Your task to perform on an android device: Go to accessibility settings Image 0: 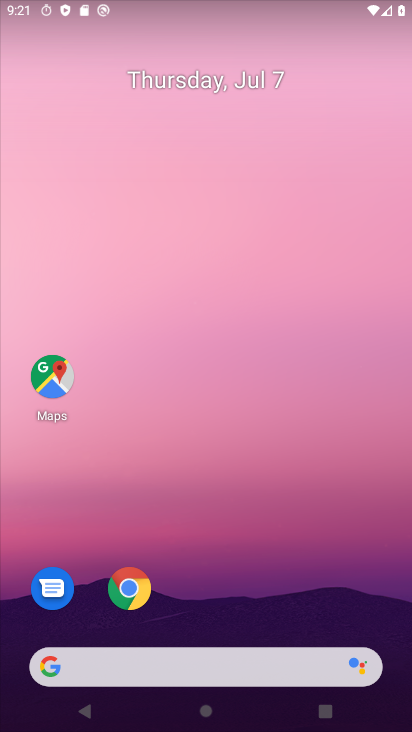
Step 0: drag from (244, 533) to (194, 187)
Your task to perform on an android device: Go to accessibility settings Image 1: 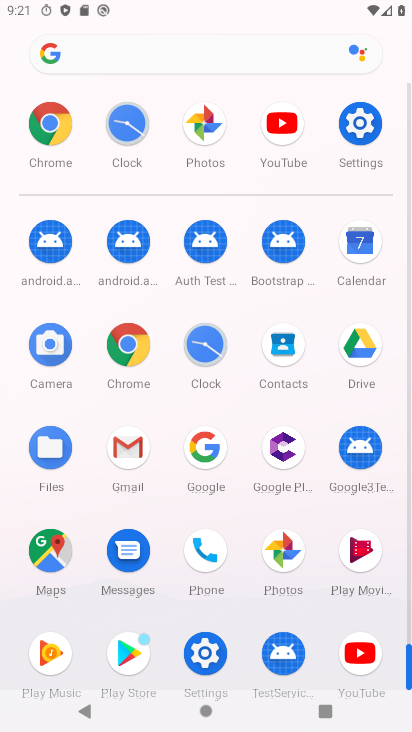
Step 1: click (360, 128)
Your task to perform on an android device: Go to accessibility settings Image 2: 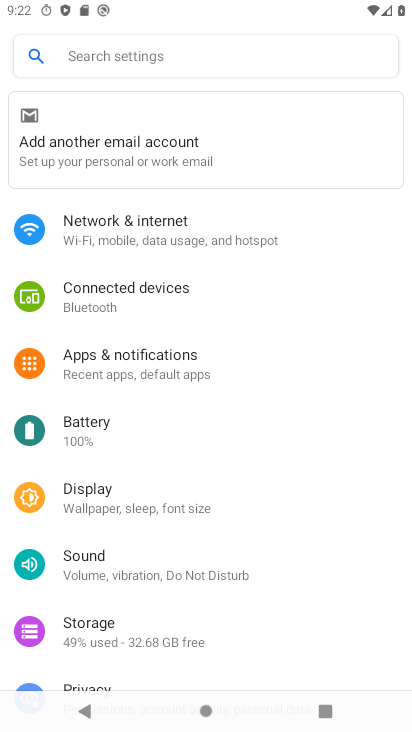
Step 2: drag from (158, 556) to (98, 304)
Your task to perform on an android device: Go to accessibility settings Image 3: 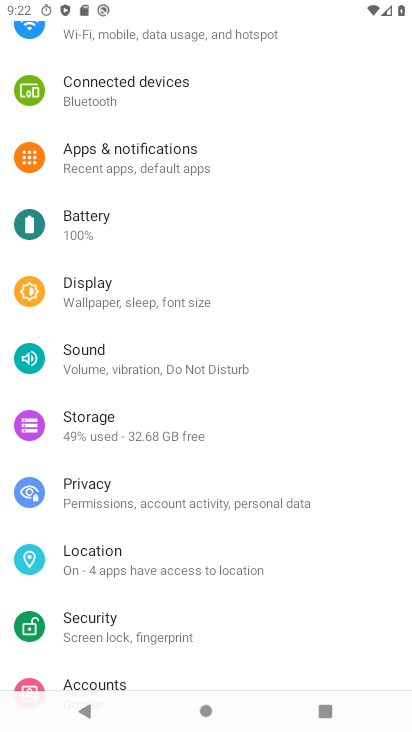
Step 3: drag from (139, 627) to (126, 477)
Your task to perform on an android device: Go to accessibility settings Image 4: 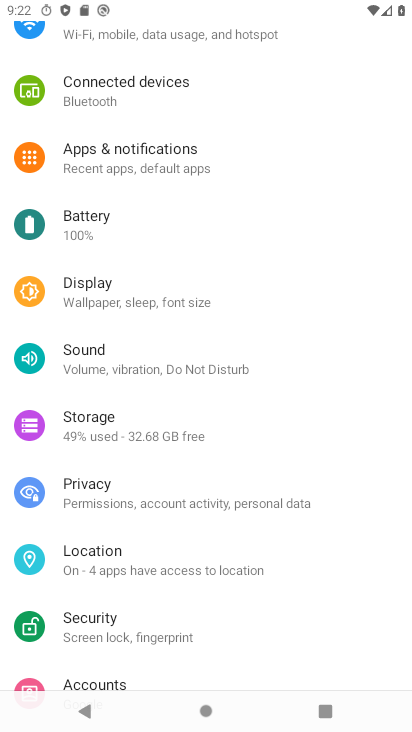
Step 4: drag from (212, 586) to (176, 390)
Your task to perform on an android device: Go to accessibility settings Image 5: 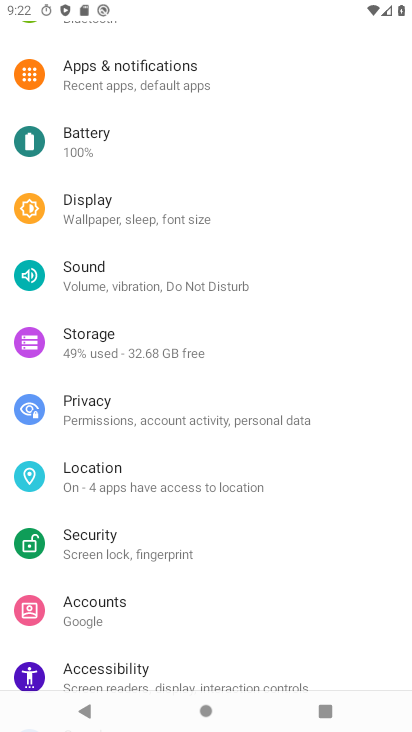
Step 5: drag from (187, 486) to (159, 294)
Your task to perform on an android device: Go to accessibility settings Image 6: 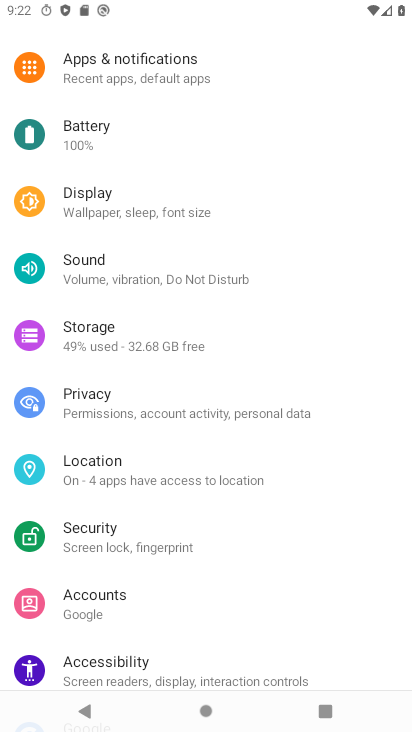
Step 6: click (129, 662)
Your task to perform on an android device: Go to accessibility settings Image 7: 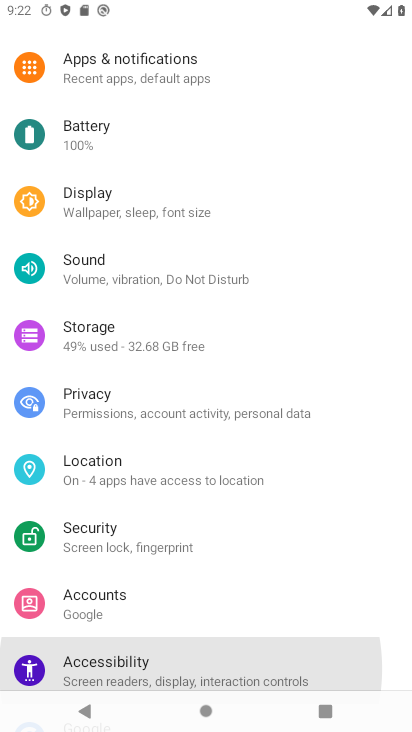
Step 7: click (129, 662)
Your task to perform on an android device: Go to accessibility settings Image 8: 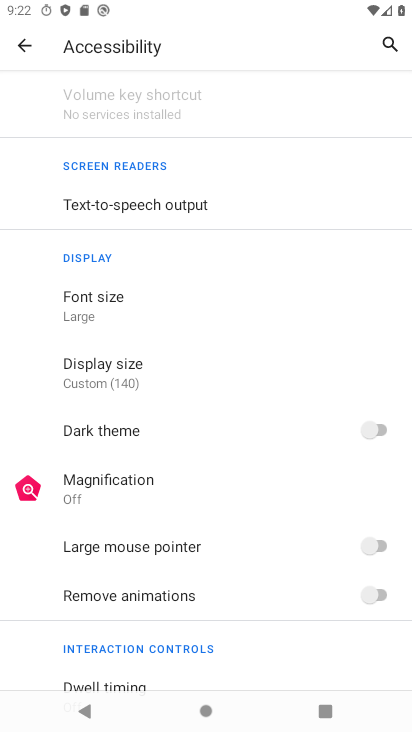
Step 8: task complete